Your task to perform on an android device: toggle data saver in the chrome app Image 0: 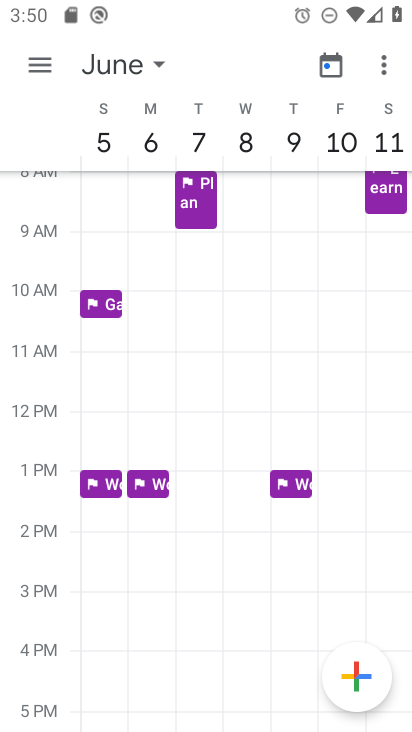
Step 0: press home button
Your task to perform on an android device: toggle data saver in the chrome app Image 1: 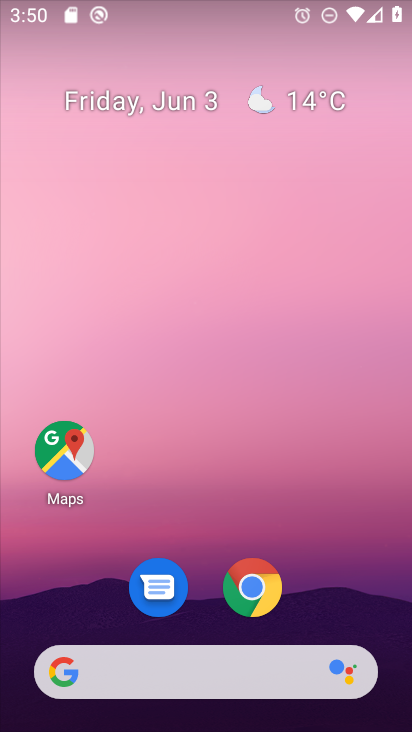
Step 1: click (248, 586)
Your task to perform on an android device: toggle data saver in the chrome app Image 2: 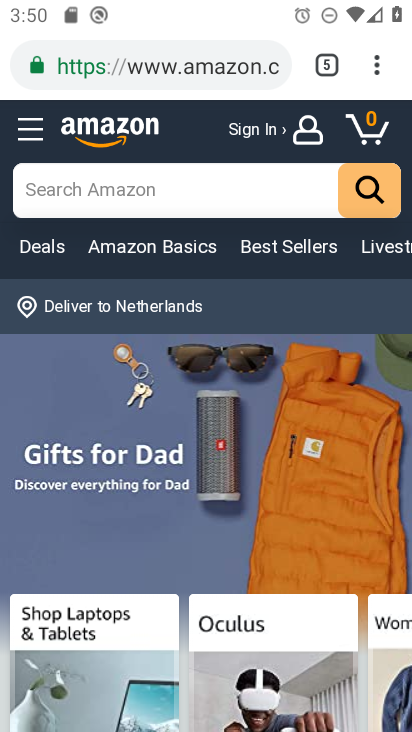
Step 2: click (379, 73)
Your task to perform on an android device: toggle data saver in the chrome app Image 3: 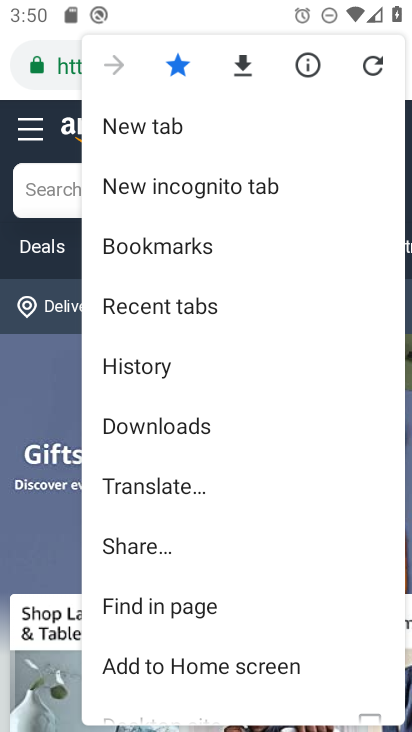
Step 3: drag from (150, 642) to (169, 261)
Your task to perform on an android device: toggle data saver in the chrome app Image 4: 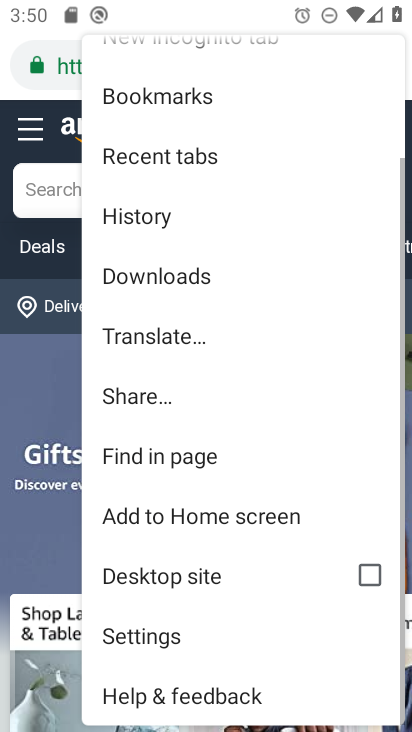
Step 4: click (145, 632)
Your task to perform on an android device: toggle data saver in the chrome app Image 5: 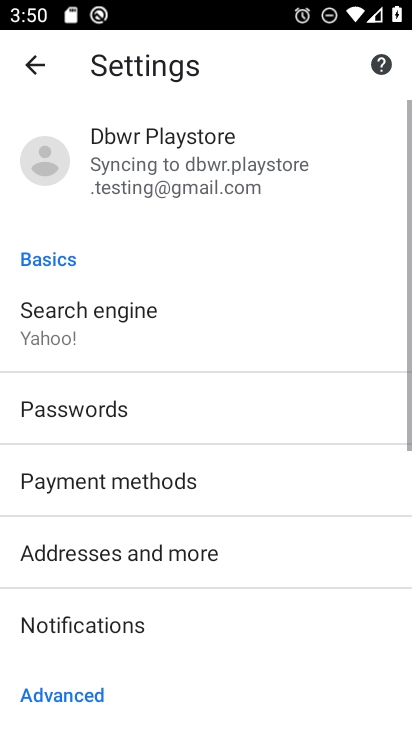
Step 5: drag from (165, 670) to (173, 321)
Your task to perform on an android device: toggle data saver in the chrome app Image 6: 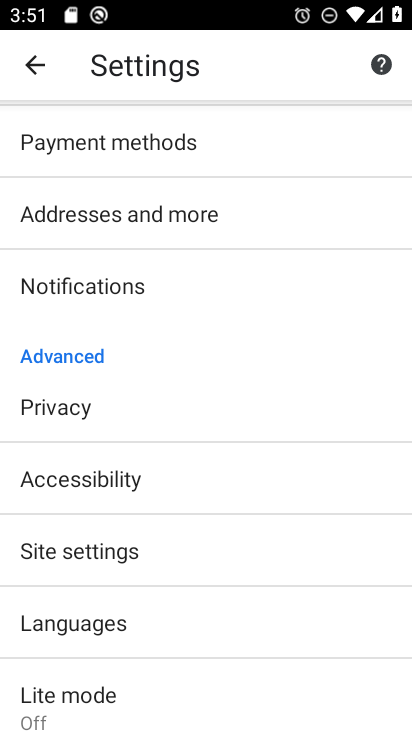
Step 6: click (64, 699)
Your task to perform on an android device: toggle data saver in the chrome app Image 7: 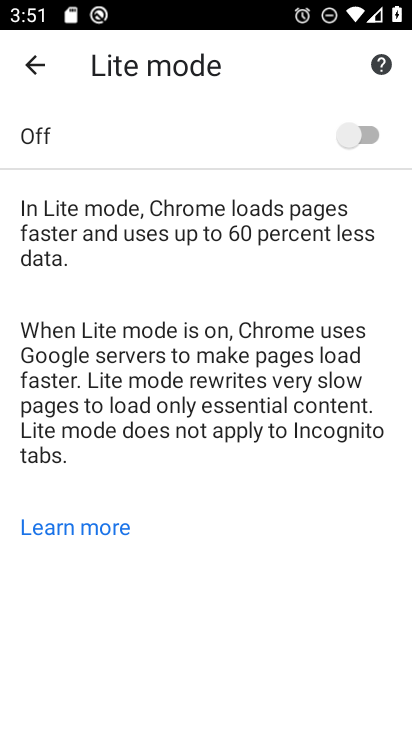
Step 7: click (374, 137)
Your task to perform on an android device: toggle data saver in the chrome app Image 8: 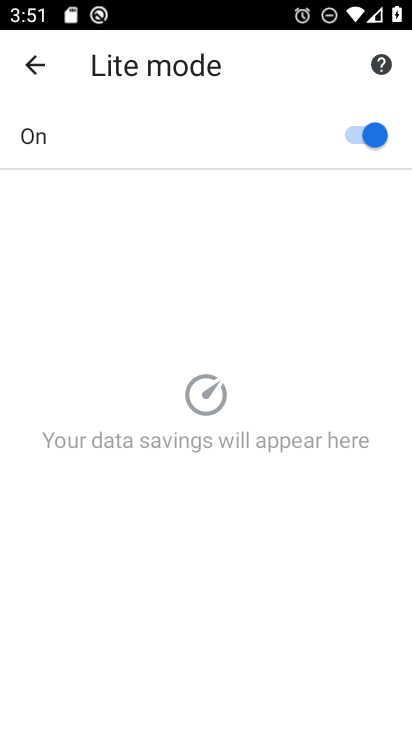
Step 8: task complete